Your task to perform on an android device: read, delete, or share a saved page in the chrome app Image 0: 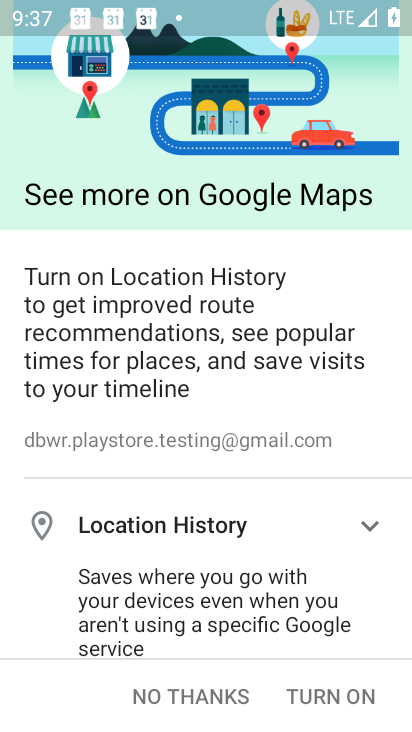
Step 0: press back button
Your task to perform on an android device: read, delete, or share a saved page in the chrome app Image 1: 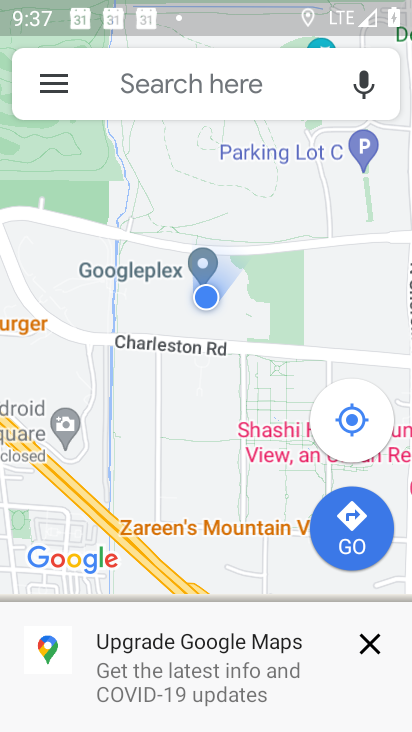
Step 1: press back button
Your task to perform on an android device: read, delete, or share a saved page in the chrome app Image 2: 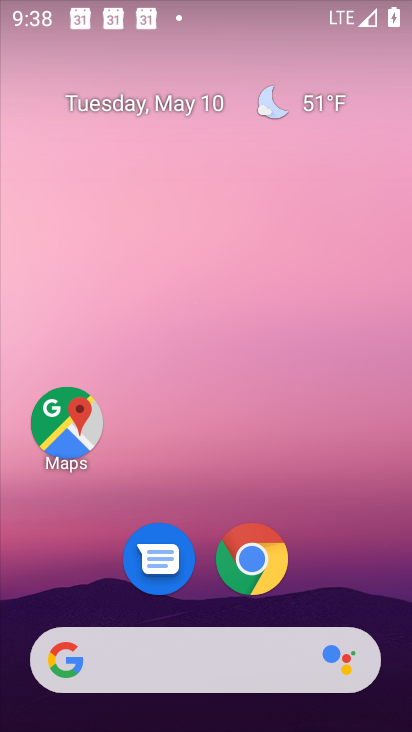
Step 2: click (251, 559)
Your task to perform on an android device: read, delete, or share a saved page in the chrome app Image 3: 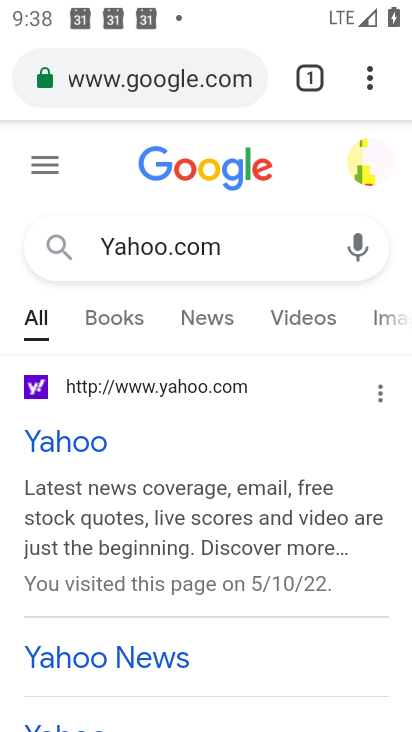
Step 3: click (371, 80)
Your task to perform on an android device: read, delete, or share a saved page in the chrome app Image 4: 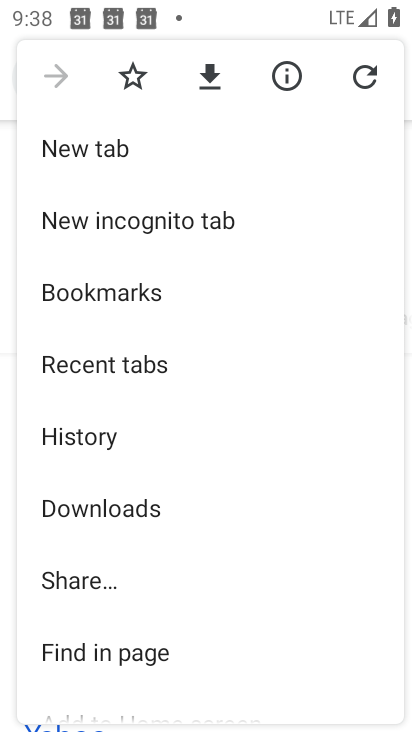
Step 4: click (118, 511)
Your task to perform on an android device: read, delete, or share a saved page in the chrome app Image 5: 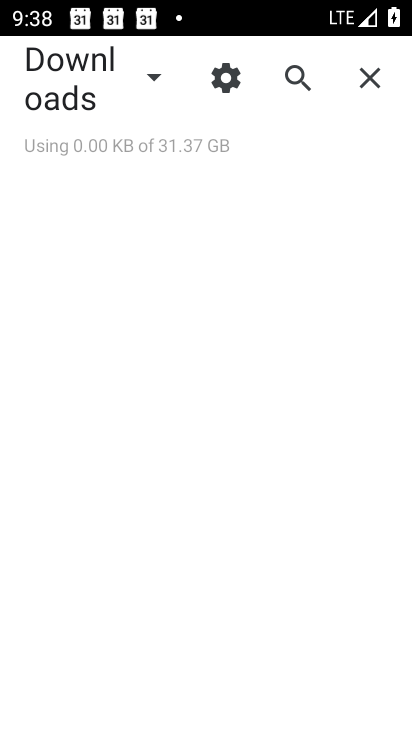
Step 5: task complete